Your task to perform on an android device: see tabs open on other devices in the chrome app Image 0: 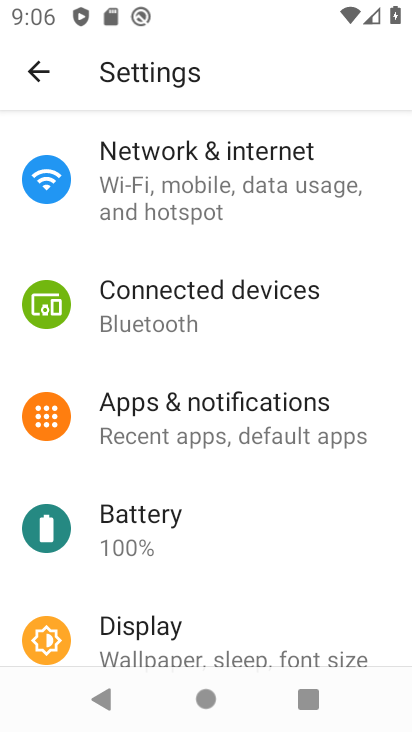
Step 0: press home button
Your task to perform on an android device: see tabs open on other devices in the chrome app Image 1: 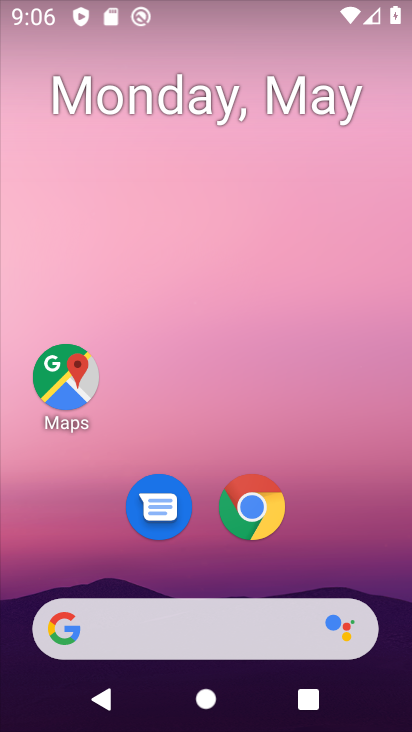
Step 1: drag from (97, 656) to (118, 200)
Your task to perform on an android device: see tabs open on other devices in the chrome app Image 2: 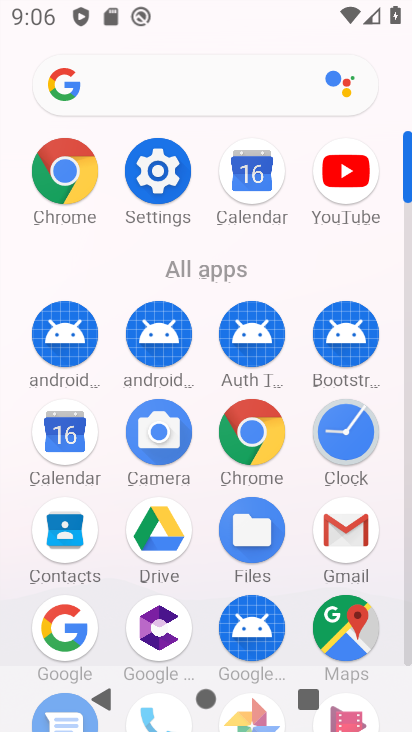
Step 2: click (241, 444)
Your task to perform on an android device: see tabs open on other devices in the chrome app Image 3: 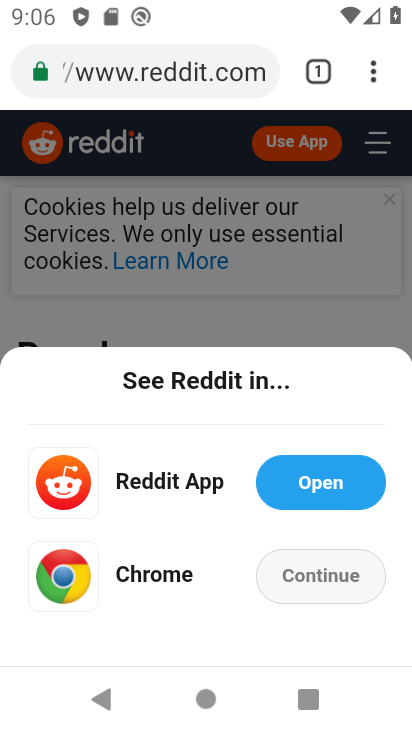
Step 3: click (369, 72)
Your task to perform on an android device: see tabs open on other devices in the chrome app Image 4: 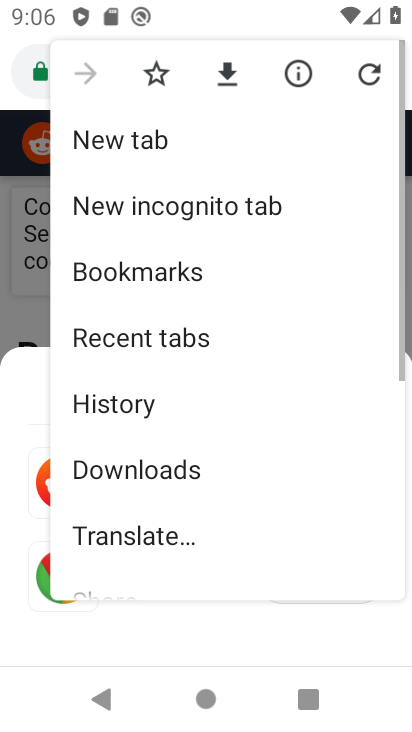
Step 4: click (159, 328)
Your task to perform on an android device: see tabs open on other devices in the chrome app Image 5: 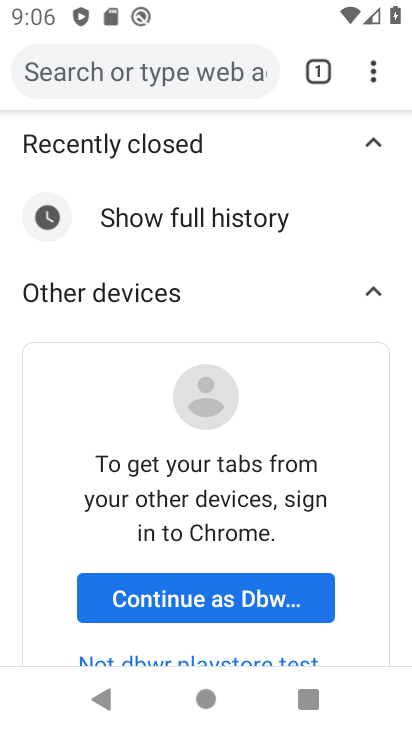
Step 5: task complete